Your task to perform on an android device: delete a single message in the gmail app Image 0: 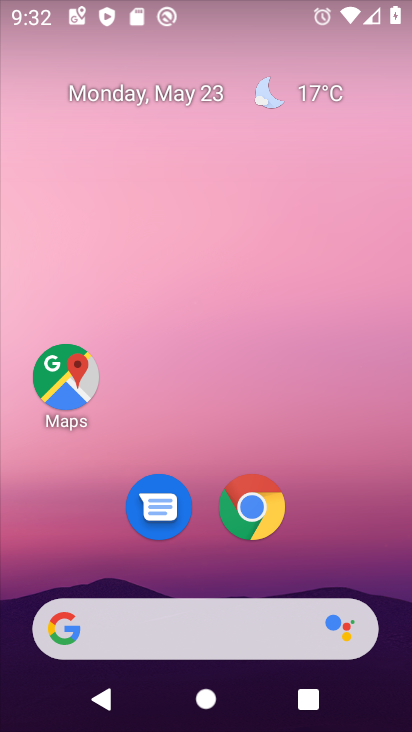
Step 0: drag from (383, 591) to (182, 0)
Your task to perform on an android device: delete a single message in the gmail app Image 1: 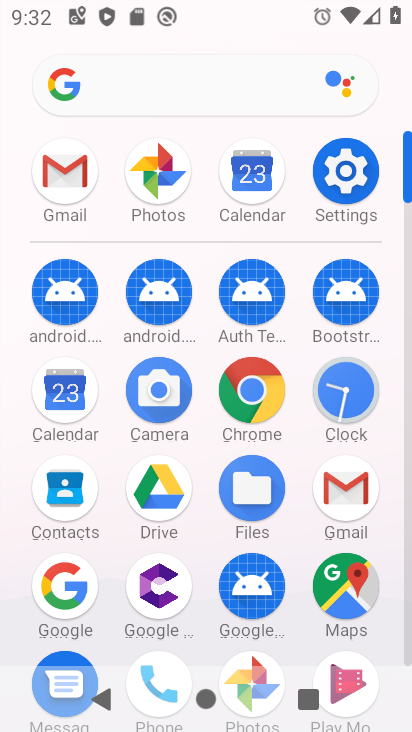
Step 1: click (58, 182)
Your task to perform on an android device: delete a single message in the gmail app Image 2: 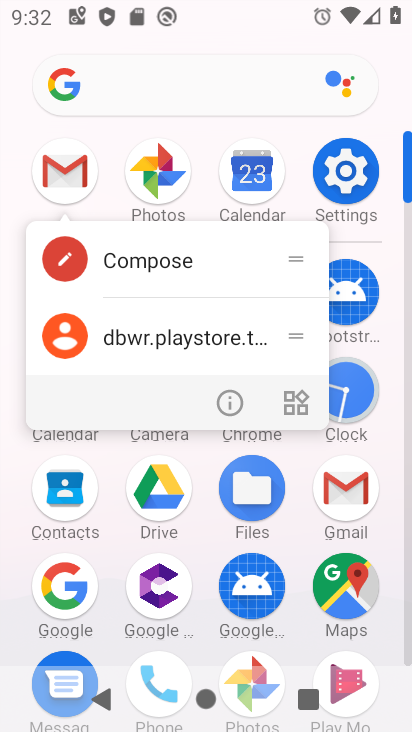
Step 2: click (58, 182)
Your task to perform on an android device: delete a single message in the gmail app Image 3: 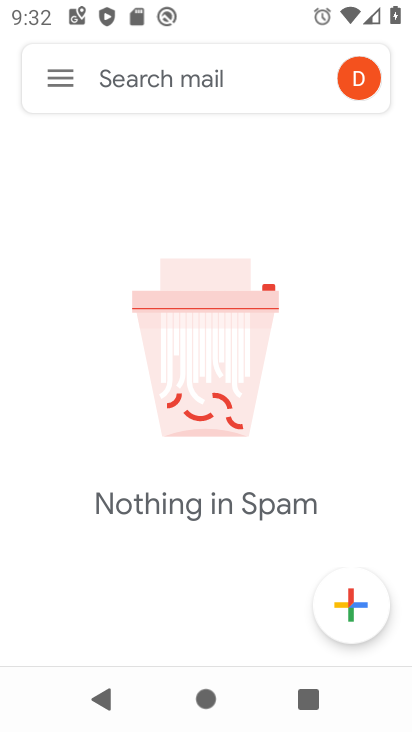
Step 3: click (53, 80)
Your task to perform on an android device: delete a single message in the gmail app Image 4: 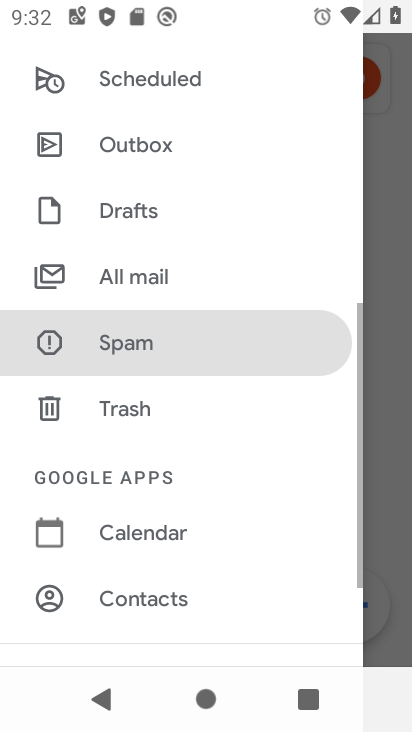
Step 4: click (105, 279)
Your task to perform on an android device: delete a single message in the gmail app Image 5: 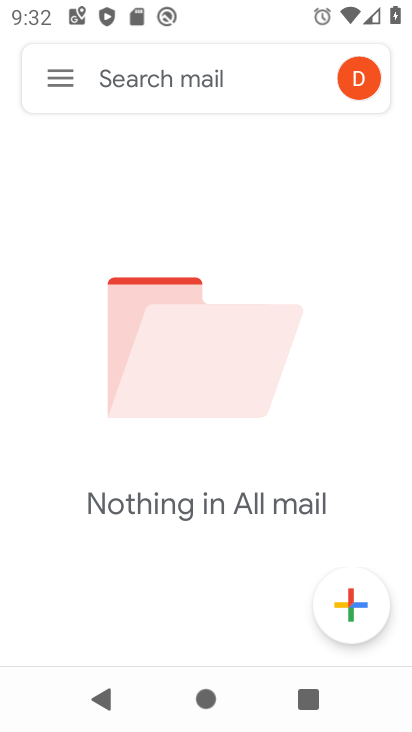
Step 5: task complete